Your task to perform on an android device: turn on showing notifications on the lock screen Image 0: 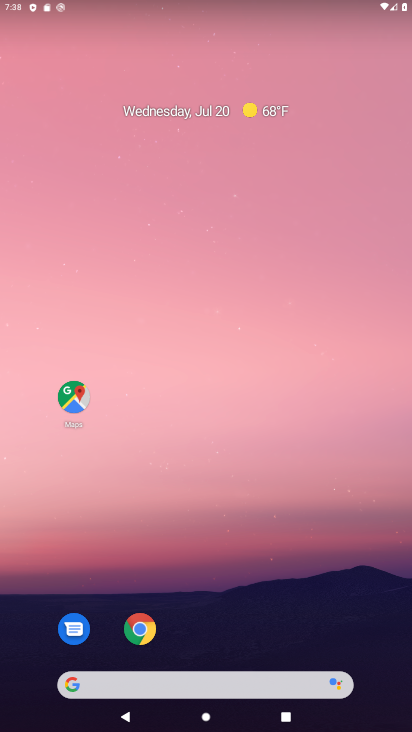
Step 0: drag from (322, 625) to (330, 193)
Your task to perform on an android device: turn on showing notifications on the lock screen Image 1: 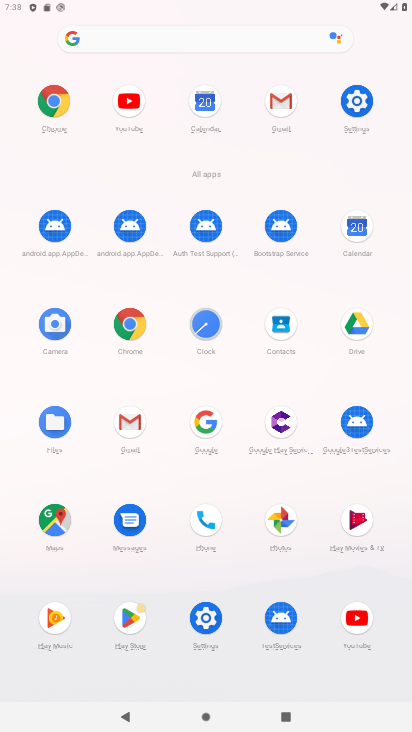
Step 1: click (368, 105)
Your task to perform on an android device: turn on showing notifications on the lock screen Image 2: 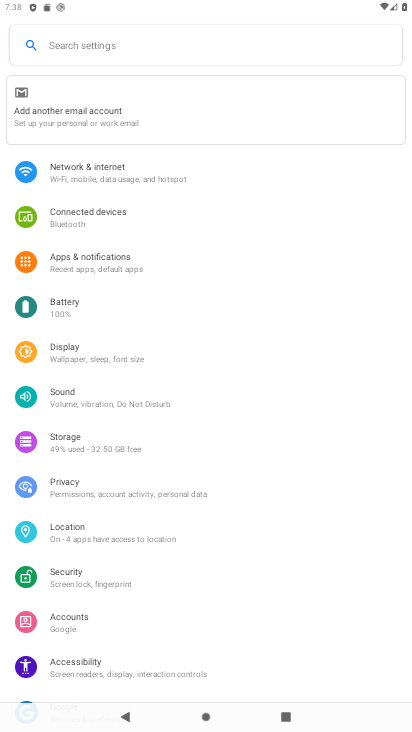
Step 2: drag from (338, 576) to (336, 286)
Your task to perform on an android device: turn on showing notifications on the lock screen Image 3: 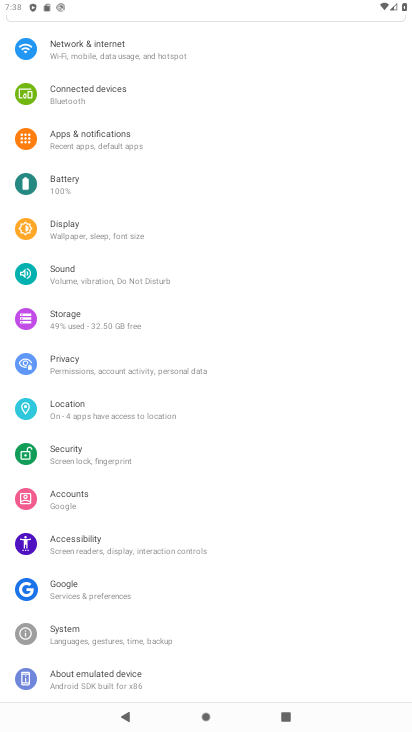
Step 3: drag from (297, 205) to (309, 354)
Your task to perform on an android device: turn on showing notifications on the lock screen Image 4: 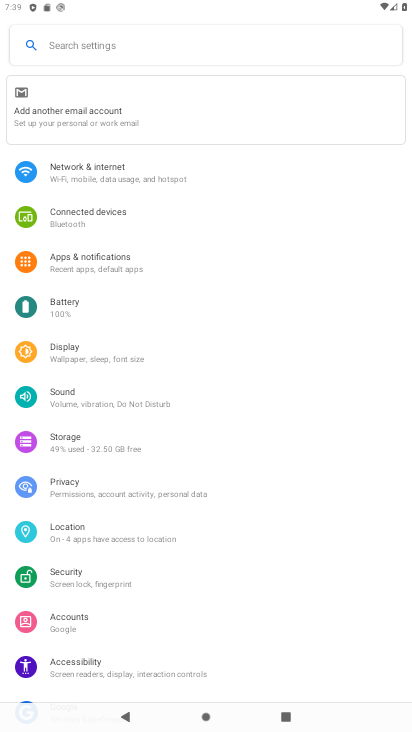
Step 4: click (111, 262)
Your task to perform on an android device: turn on showing notifications on the lock screen Image 5: 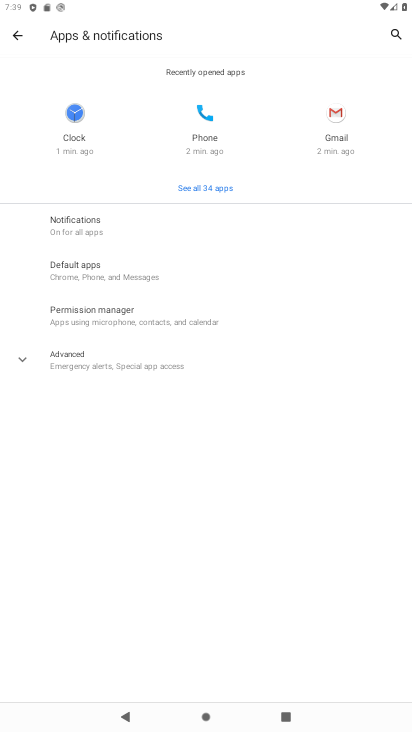
Step 5: click (118, 224)
Your task to perform on an android device: turn on showing notifications on the lock screen Image 6: 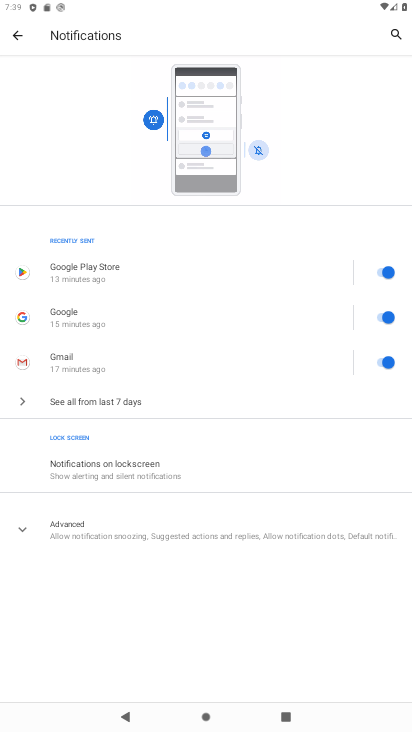
Step 6: click (169, 469)
Your task to perform on an android device: turn on showing notifications on the lock screen Image 7: 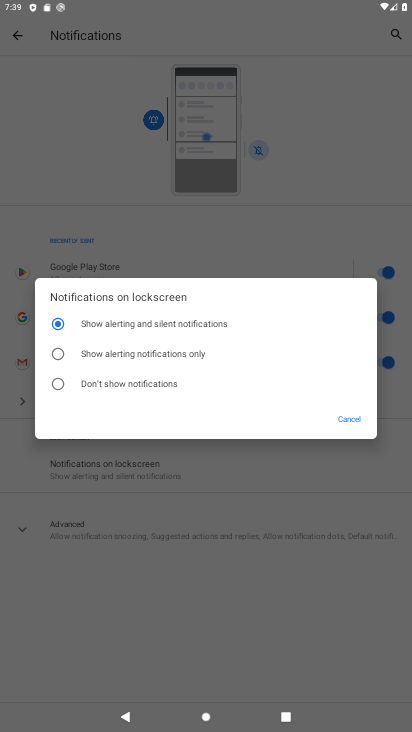
Step 7: task complete